Your task to perform on an android device: turn vacation reply on in the gmail app Image 0: 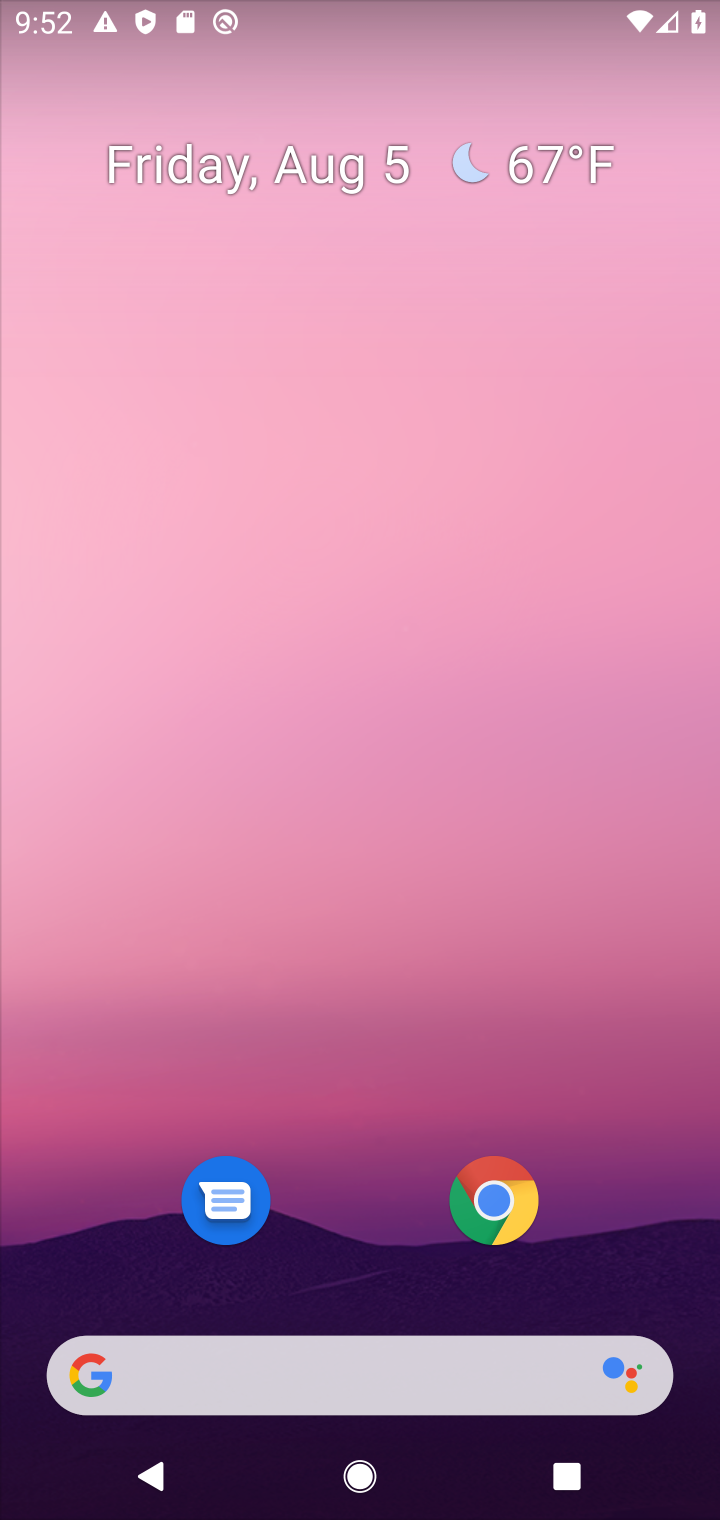
Step 0: click (483, 358)
Your task to perform on an android device: turn vacation reply on in the gmail app Image 1: 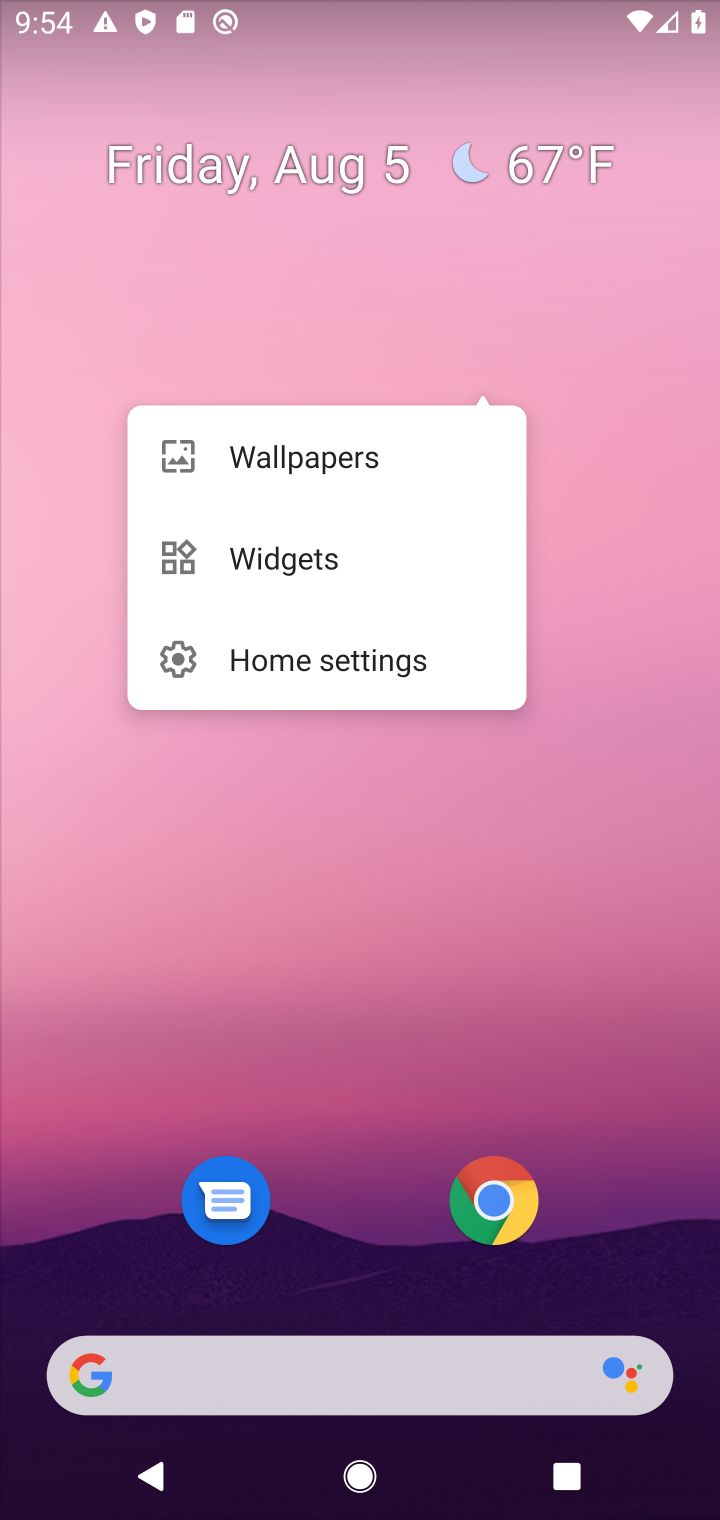
Step 1: click (187, 991)
Your task to perform on an android device: turn vacation reply on in the gmail app Image 2: 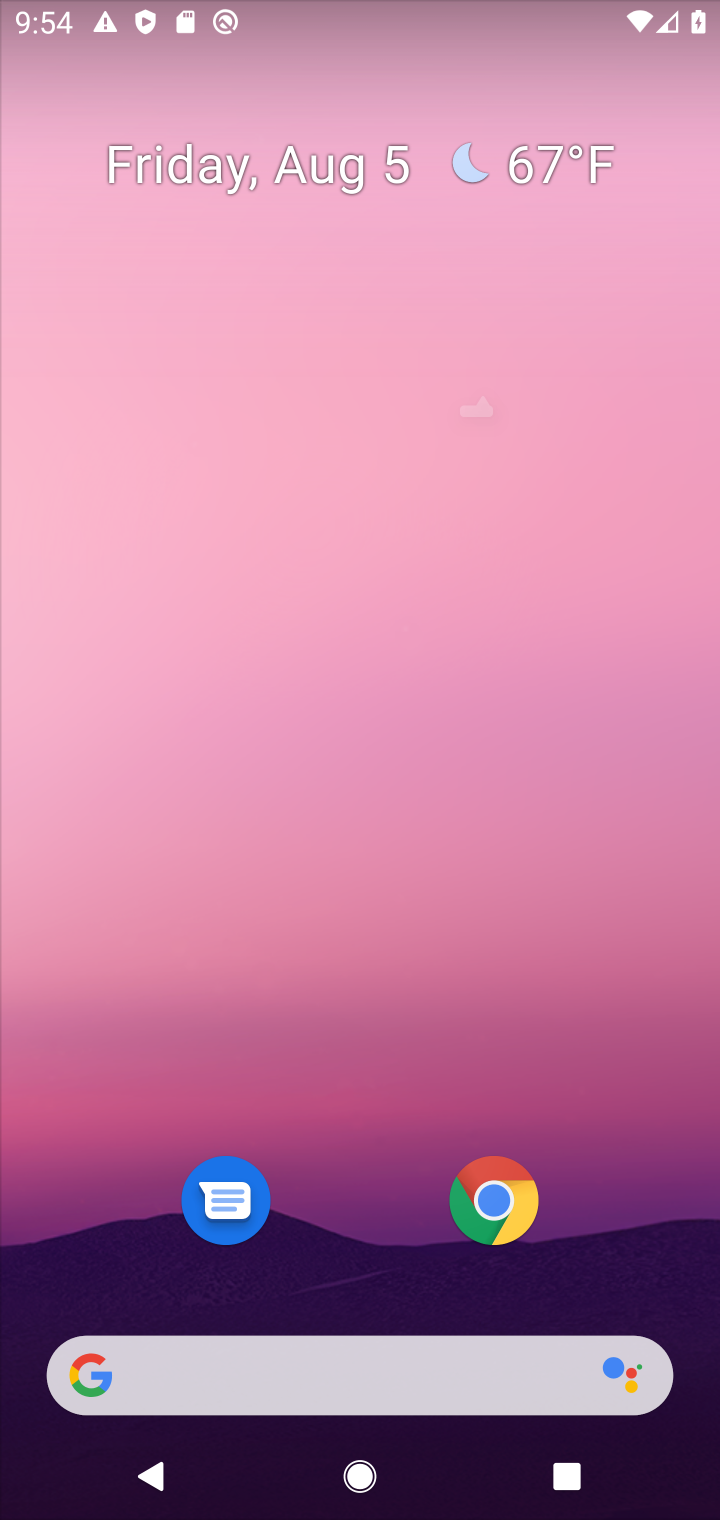
Step 2: drag from (396, 984) to (395, 117)
Your task to perform on an android device: turn vacation reply on in the gmail app Image 3: 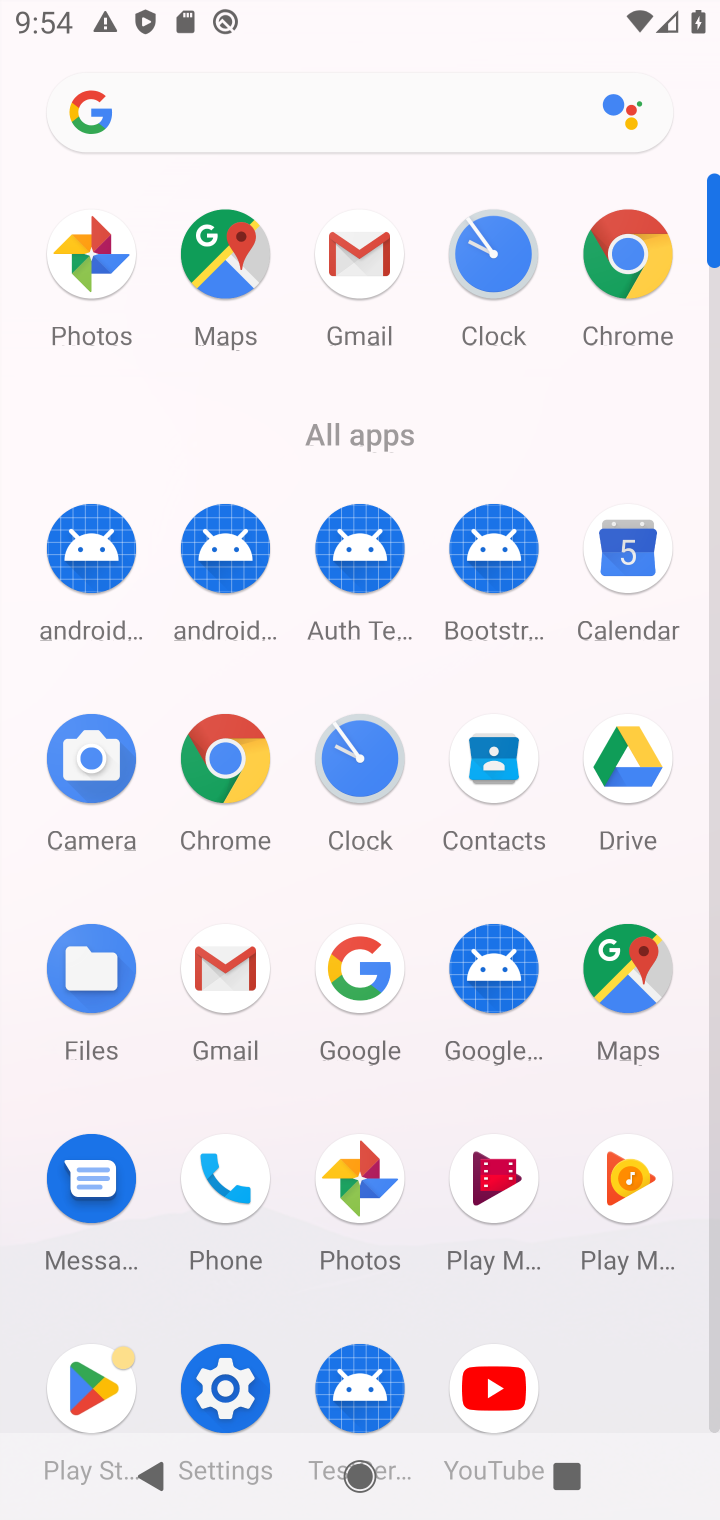
Step 3: click (336, 309)
Your task to perform on an android device: turn vacation reply on in the gmail app Image 4: 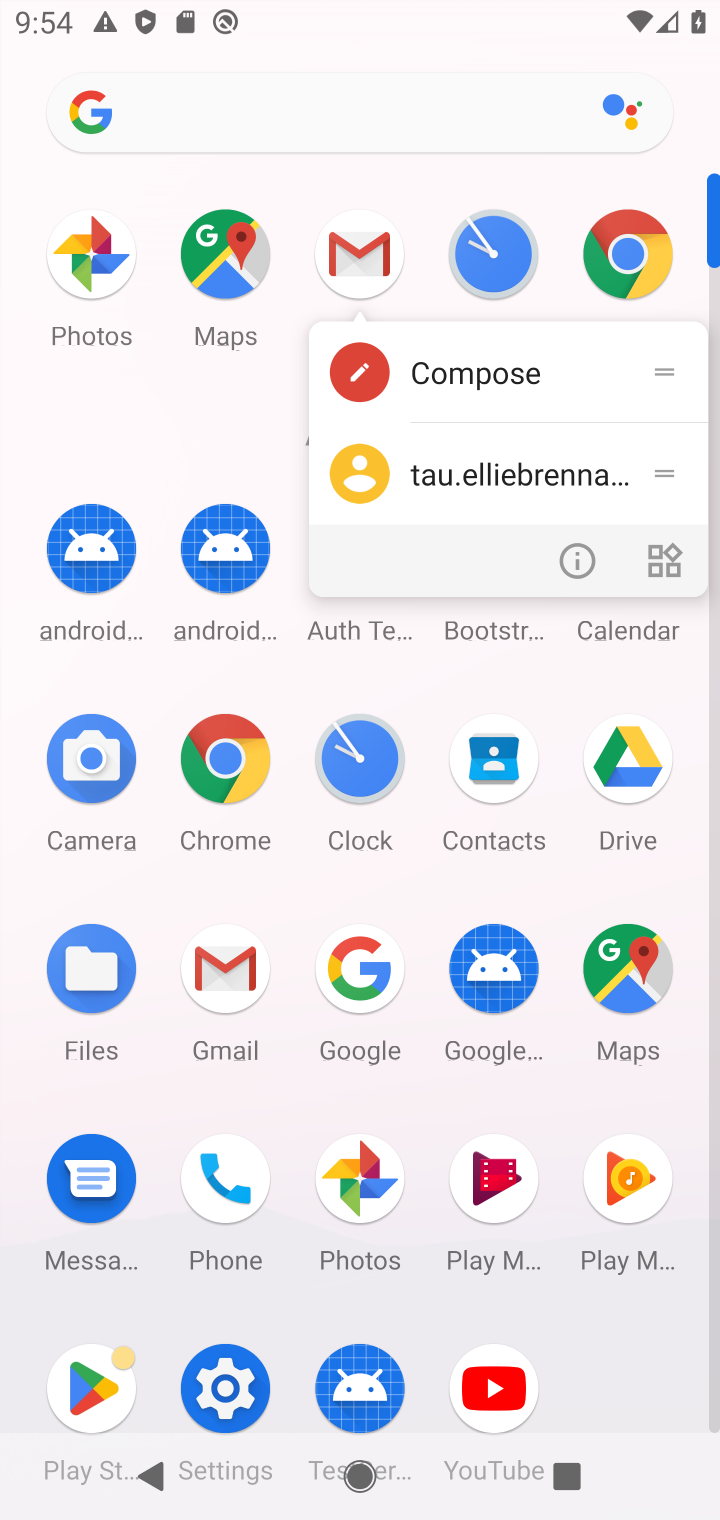
Step 4: click (345, 254)
Your task to perform on an android device: turn vacation reply on in the gmail app Image 5: 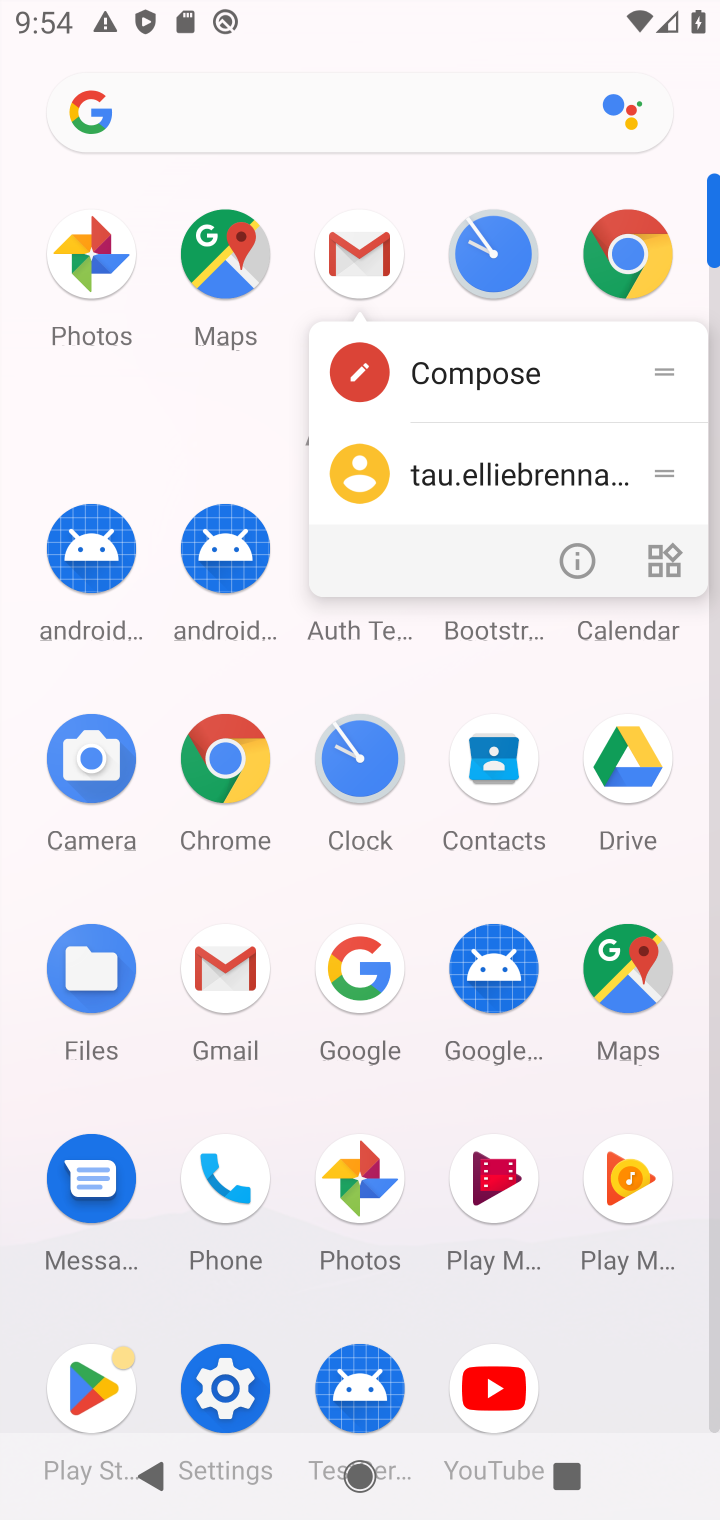
Step 5: click (359, 239)
Your task to perform on an android device: turn vacation reply on in the gmail app Image 6: 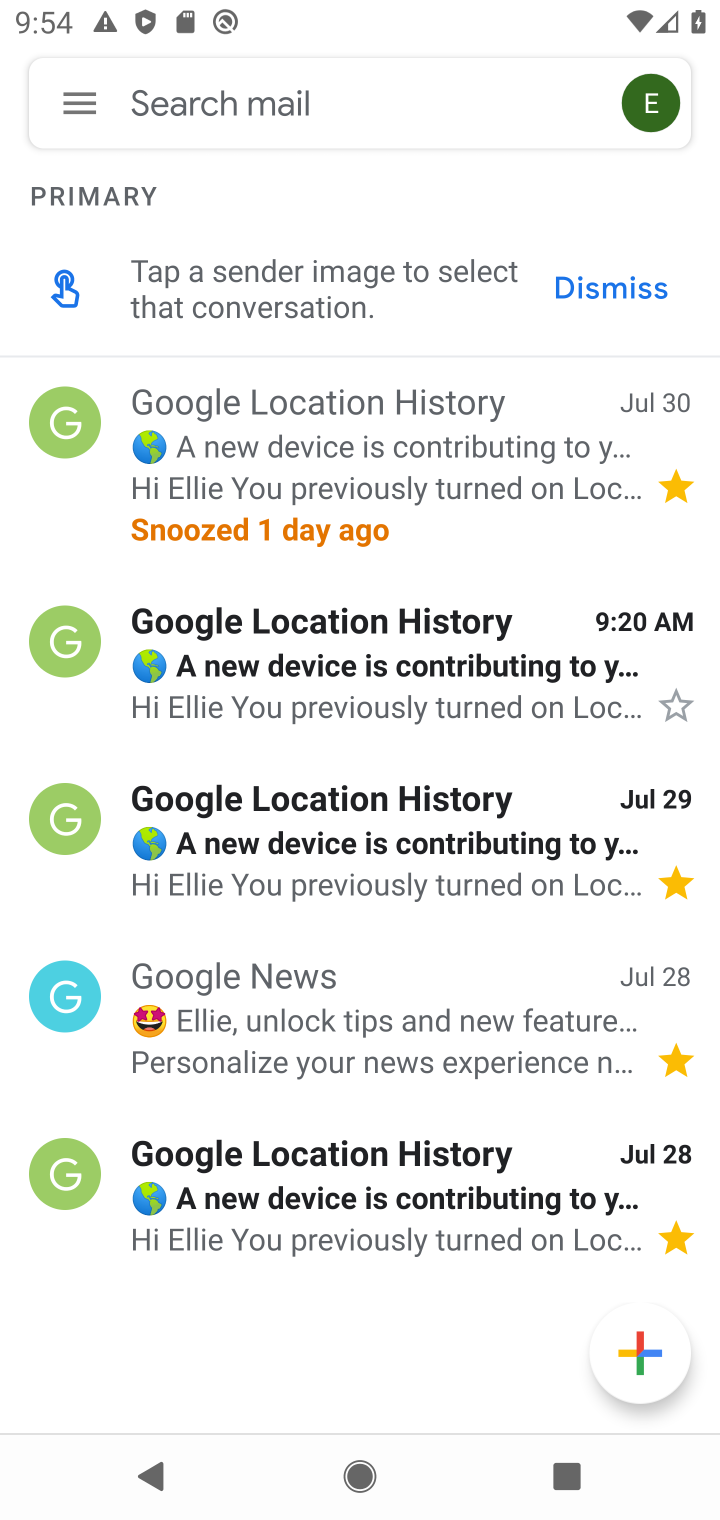
Step 6: click (75, 91)
Your task to perform on an android device: turn vacation reply on in the gmail app Image 7: 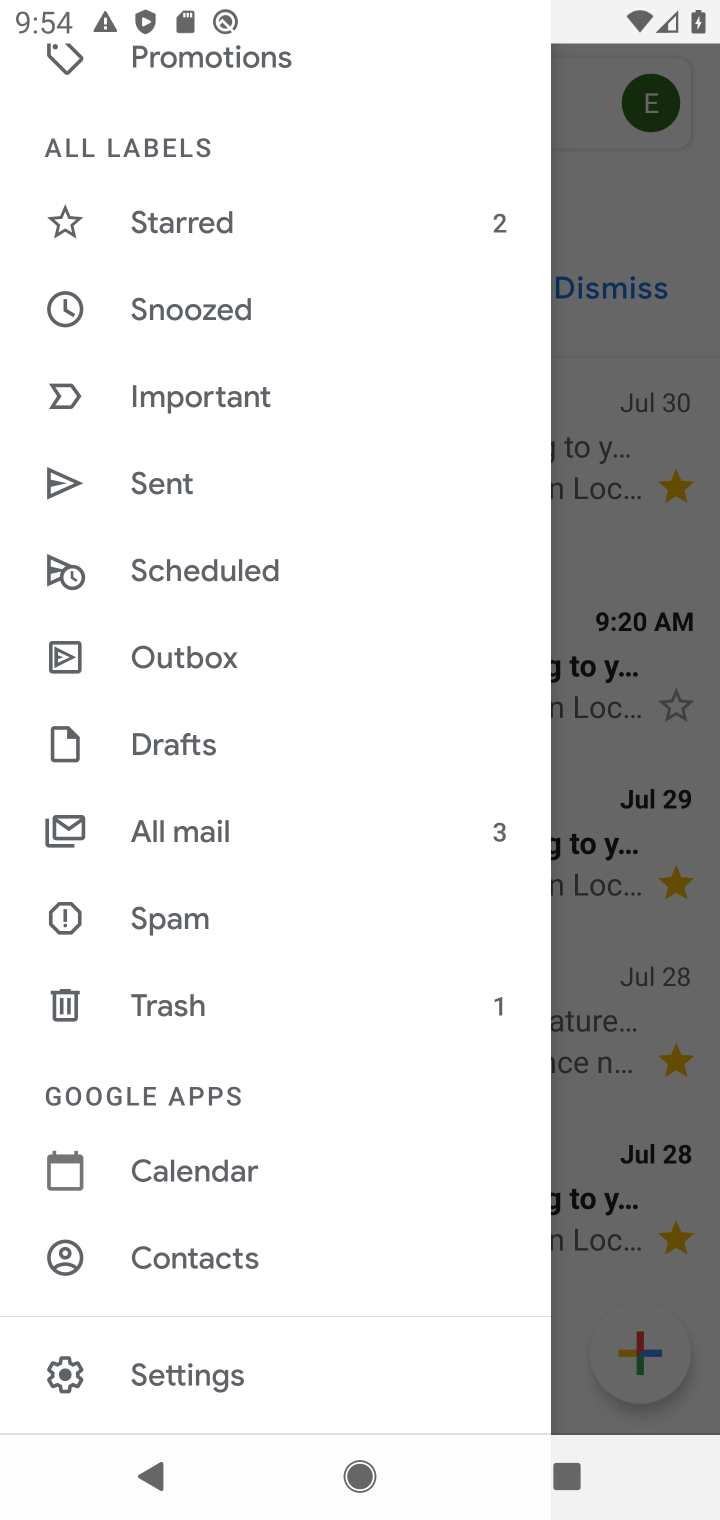
Step 7: click (225, 1356)
Your task to perform on an android device: turn vacation reply on in the gmail app Image 8: 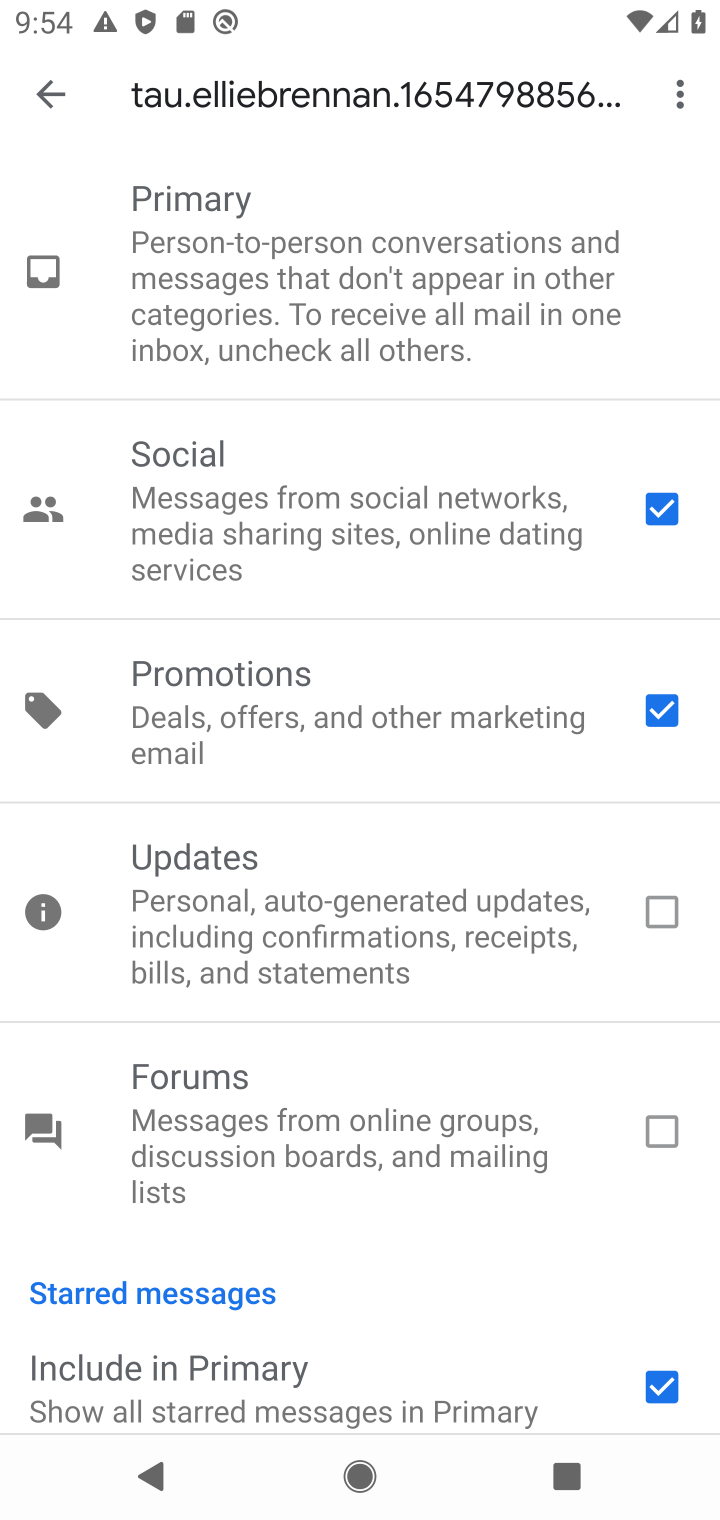
Step 8: drag from (277, 1277) to (376, 58)
Your task to perform on an android device: turn vacation reply on in the gmail app Image 9: 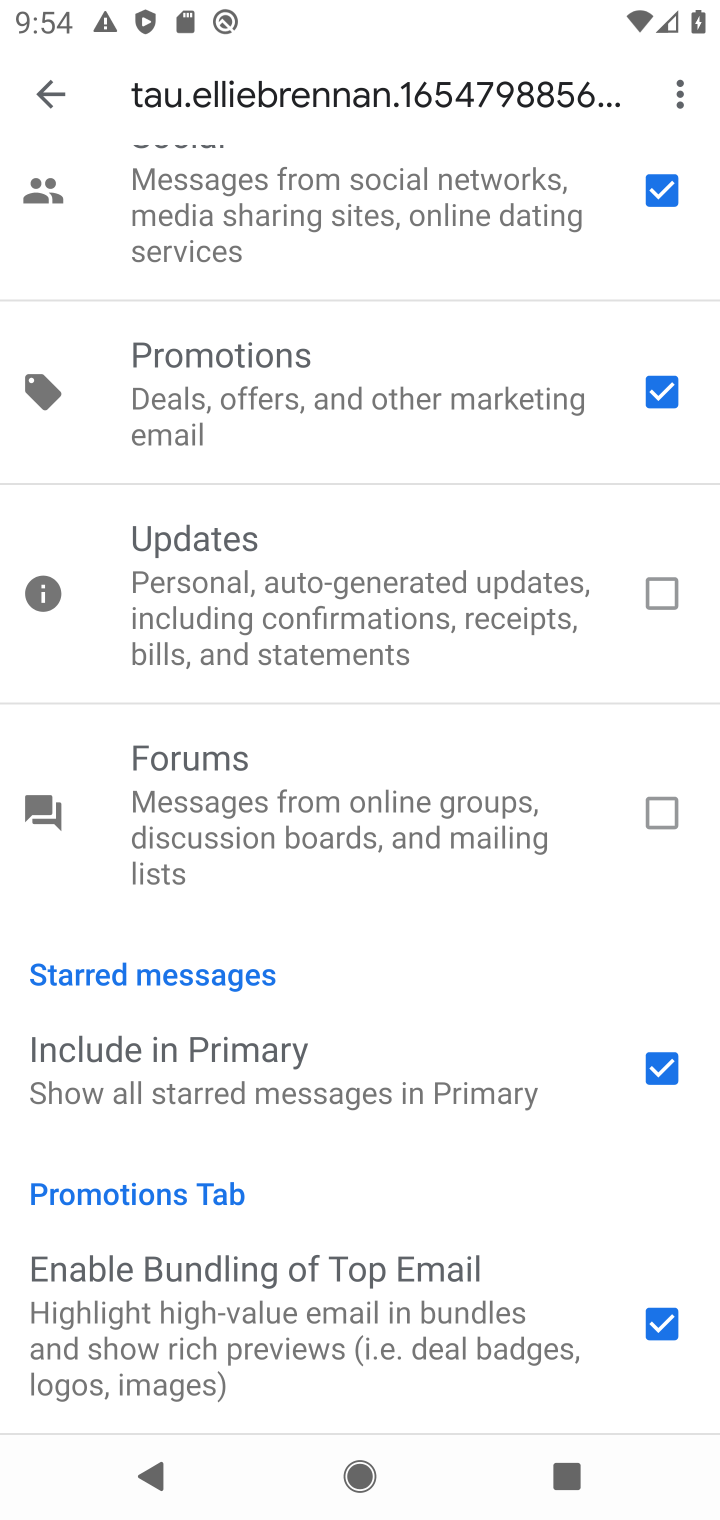
Step 9: drag from (350, 931) to (437, 146)
Your task to perform on an android device: turn vacation reply on in the gmail app Image 10: 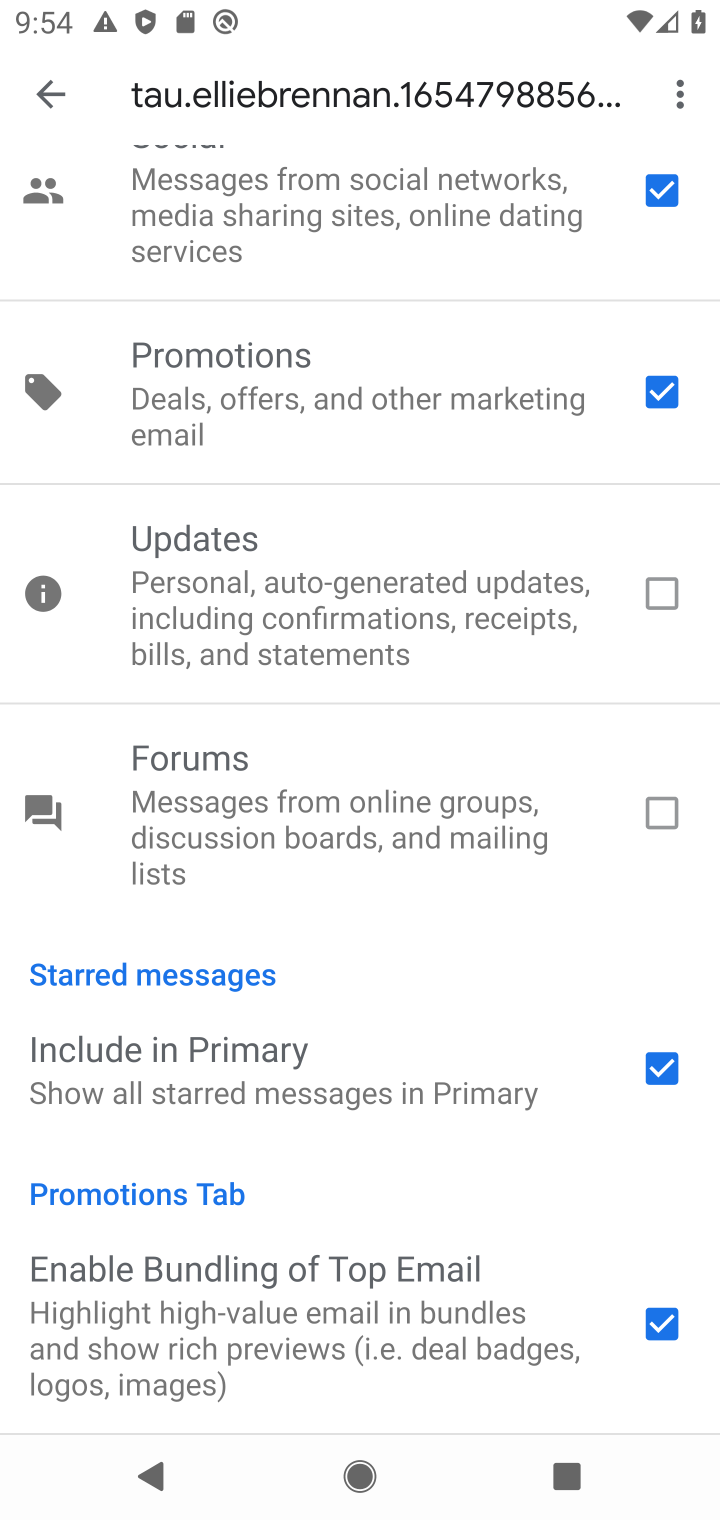
Step 10: drag from (386, 434) to (404, 1366)
Your task to perform on an android device: turn vacation reply on in the gmail app Image 11: 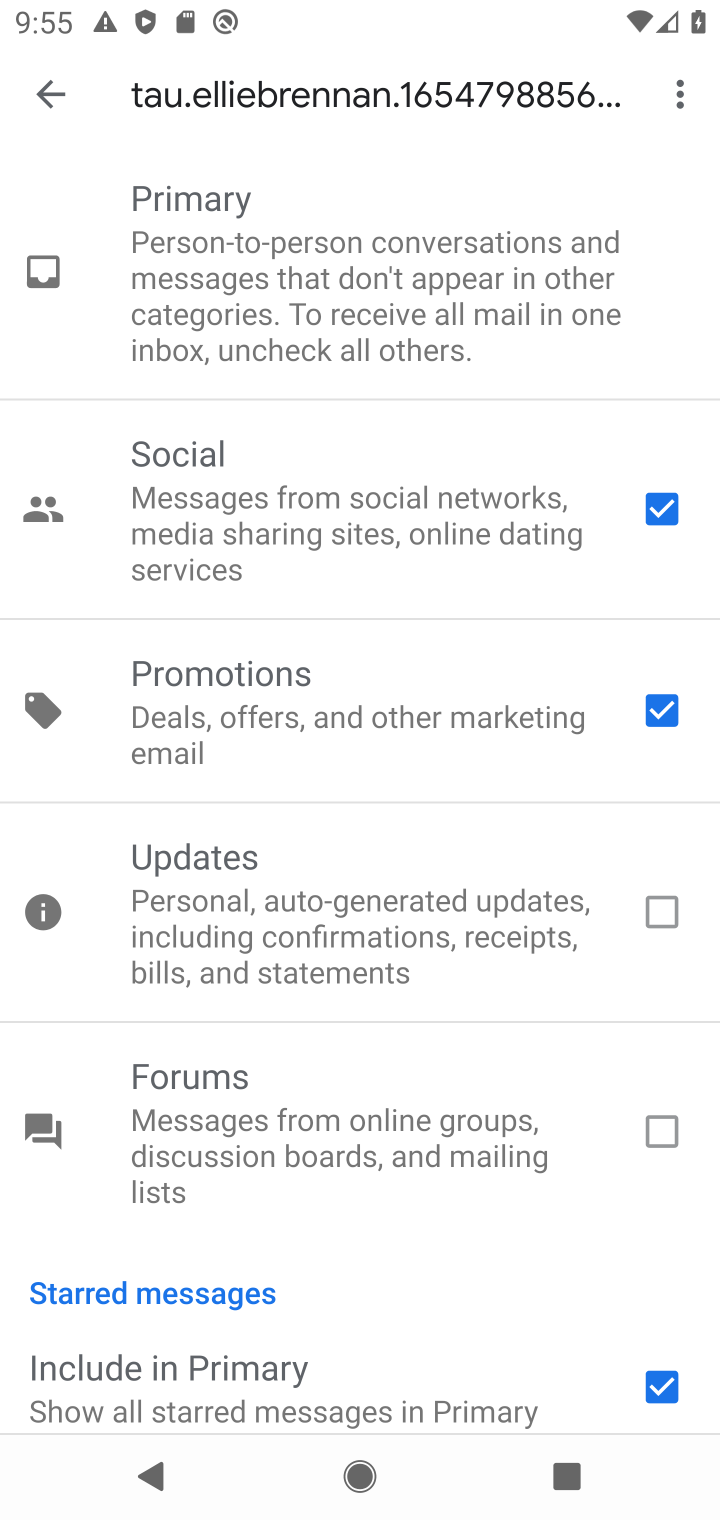
Step 11: drag from (408, 1056) to (530, 193)
Your task to perform on an android device: turn vacation reply on in the gmail app Image 12: 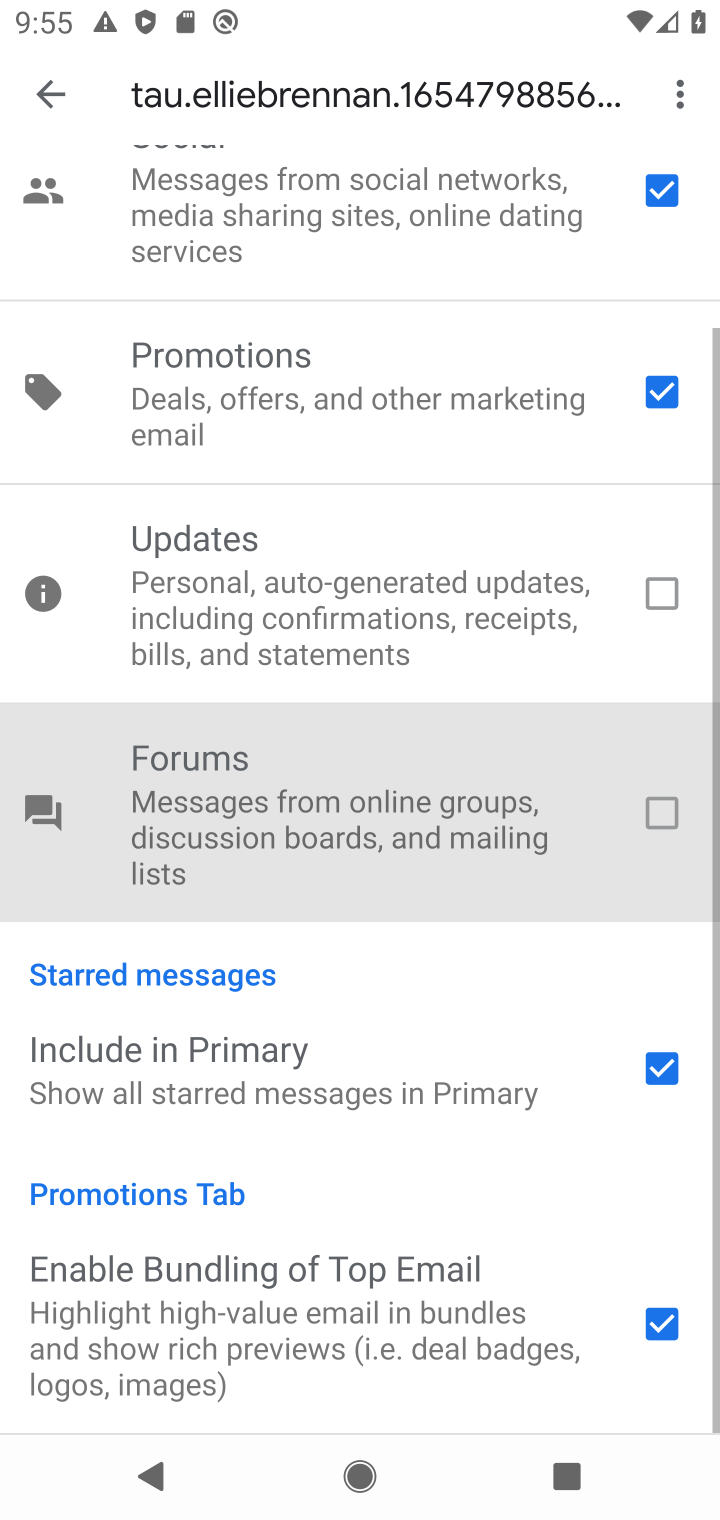
Step 12: click (31, 109)
Your task to perform on an android device: turn vacation reply on in the gmail app Image 13: 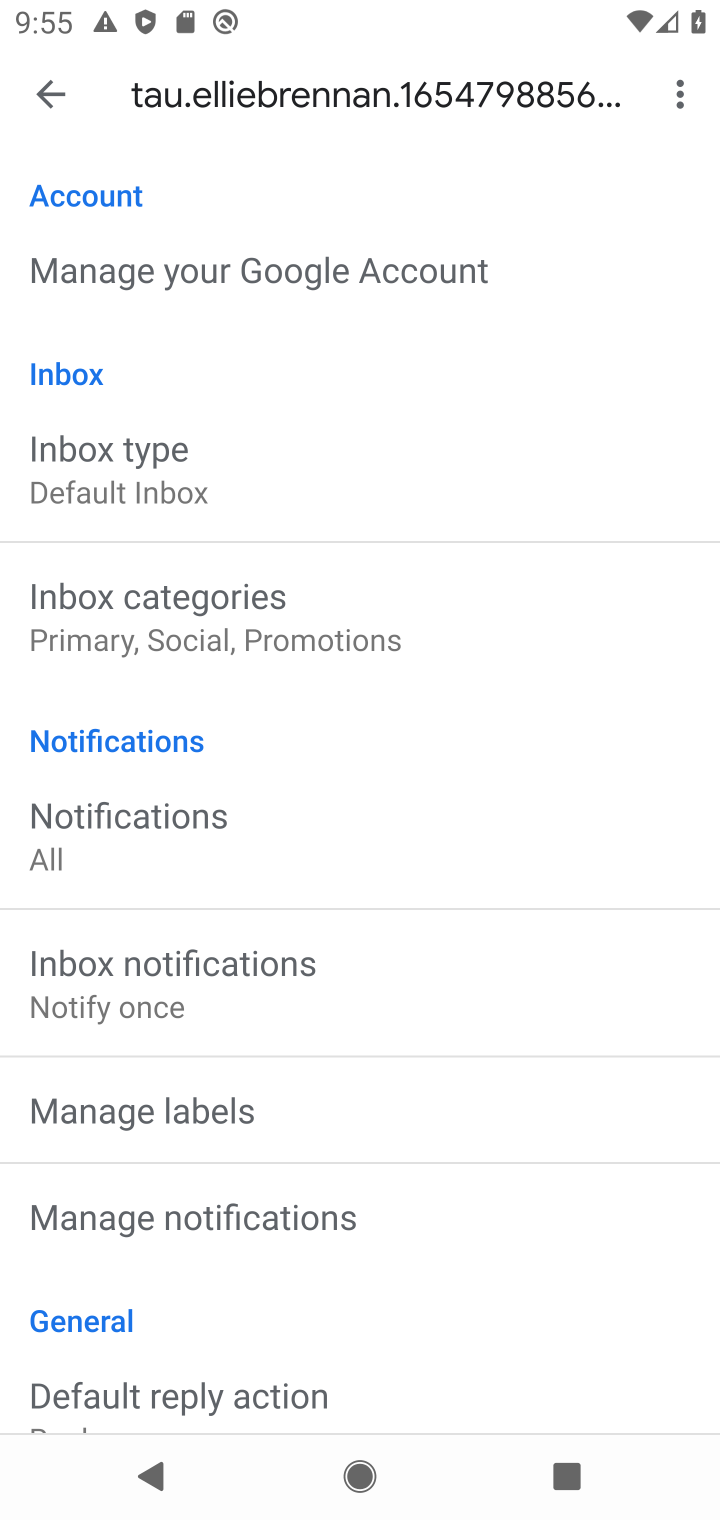
Step 13: drag from (292, 1218) to (434, 291)
Your task to perform on an android device: turn vacation reply on in the gmail app Image 14: 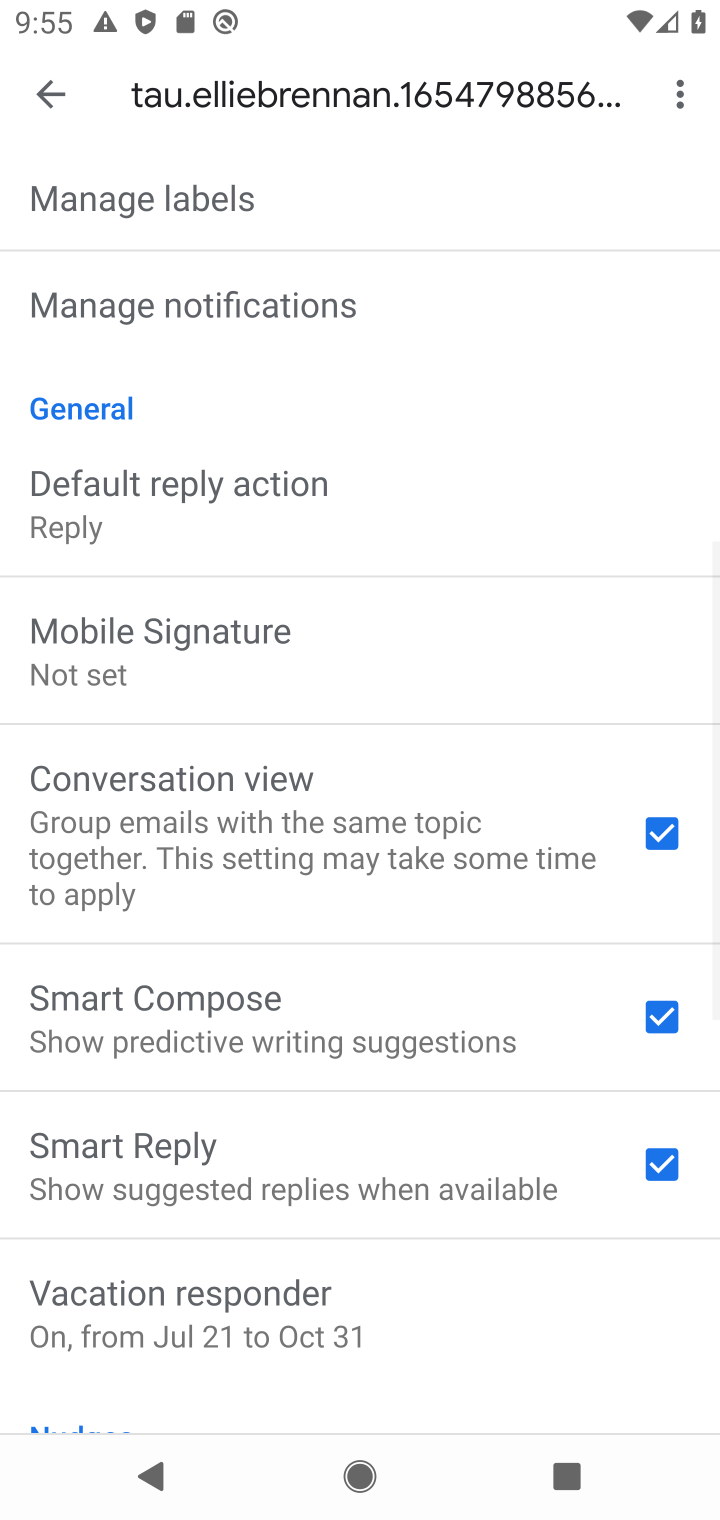
Step 14: drag from (388, 1038) to (464, 469)
Your task to perform on an android device: turn vacation reply on in the gmail app Image 15: 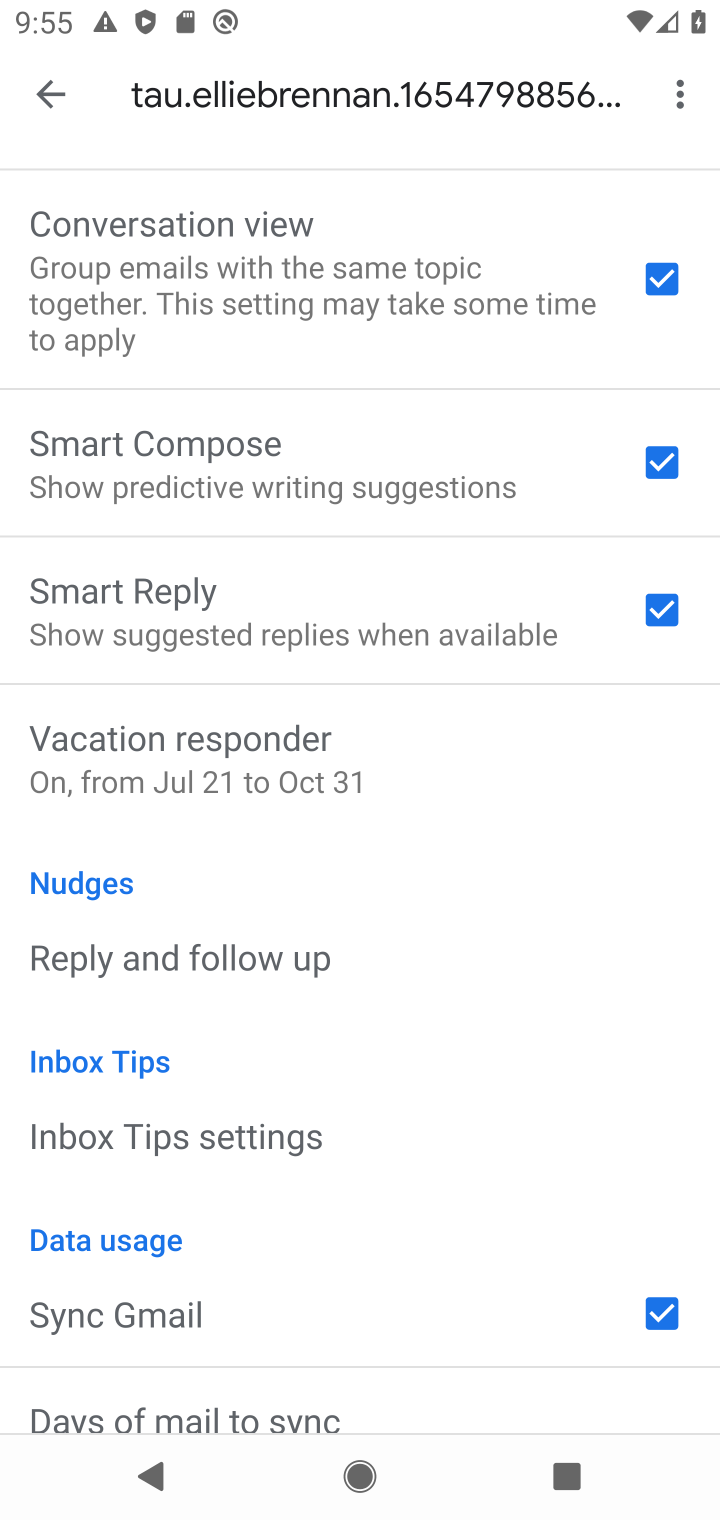
Step 15: click (195, 774)
Your task to perform on an android device: turn vacation reply on in the gmail app Image 16: 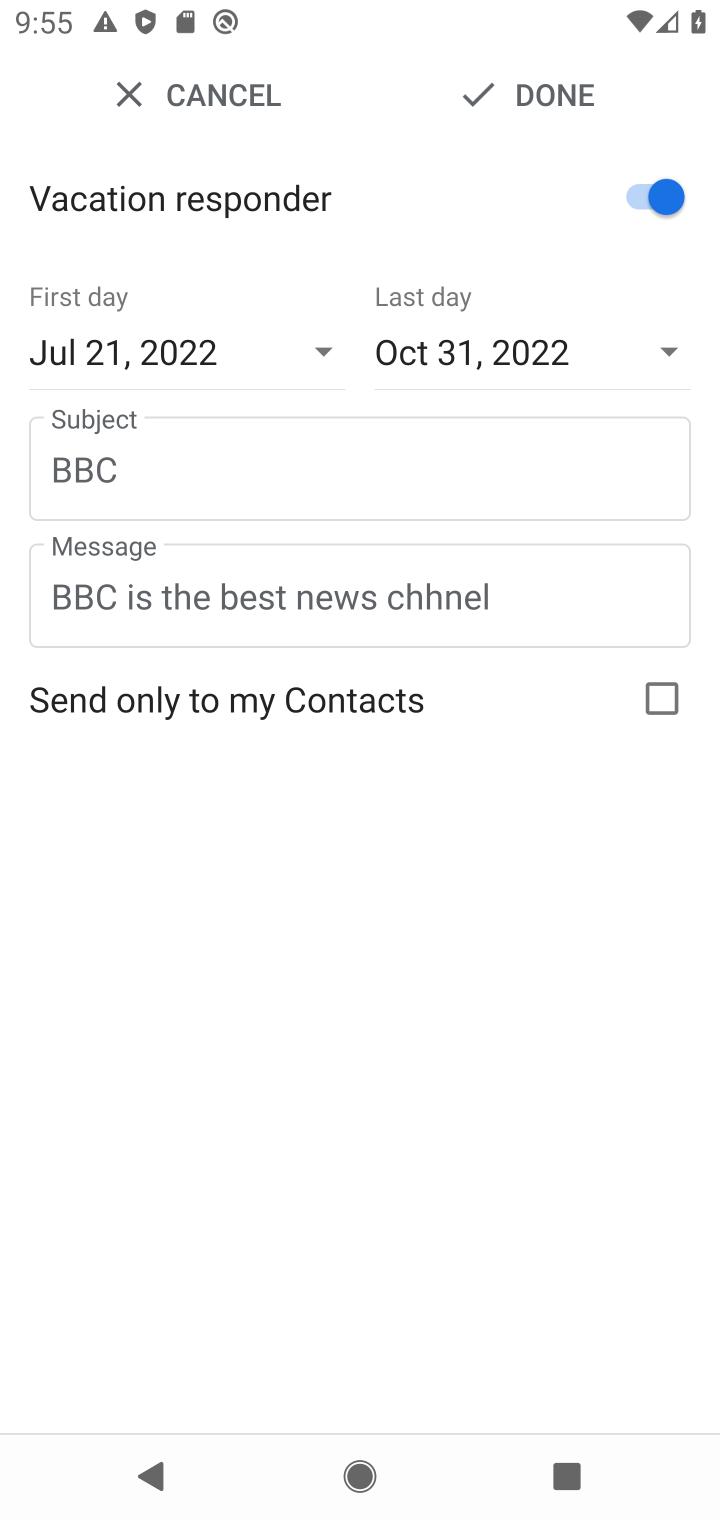
Step 16: task complete